Your task to perform on an android device: toggle data saver in the chrome app Image 0: 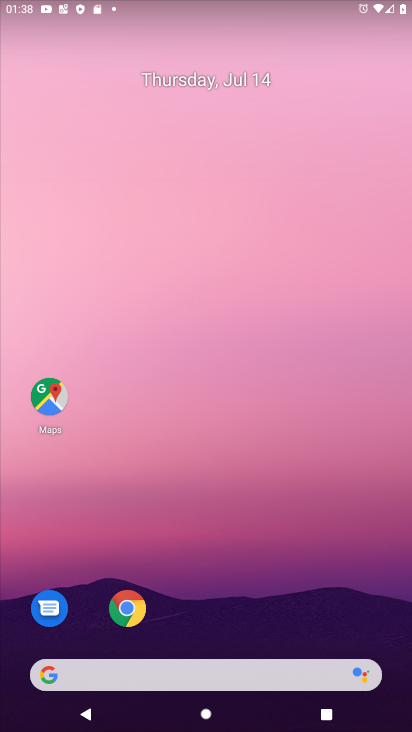
Step 0: press home button
Your task to perform on an android device: toggle data saver in the chrome app Image 1: 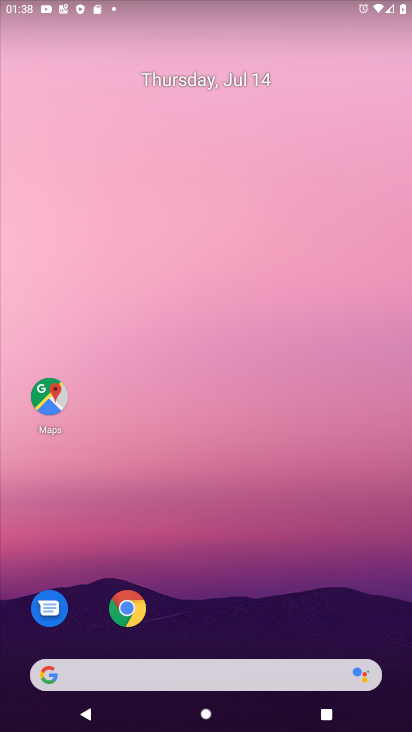
Step 1: drag from (197, 640) to (85, 139)
Your task to perform on an android device: toggle data saver in the chrome app Image 2: 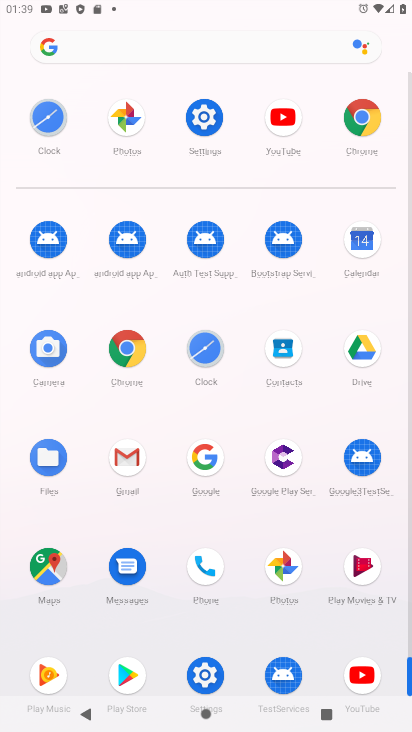
Step 2: click (129, 357)
Your task to perform on an android device: toggle data saver in the chrome app Image 3: 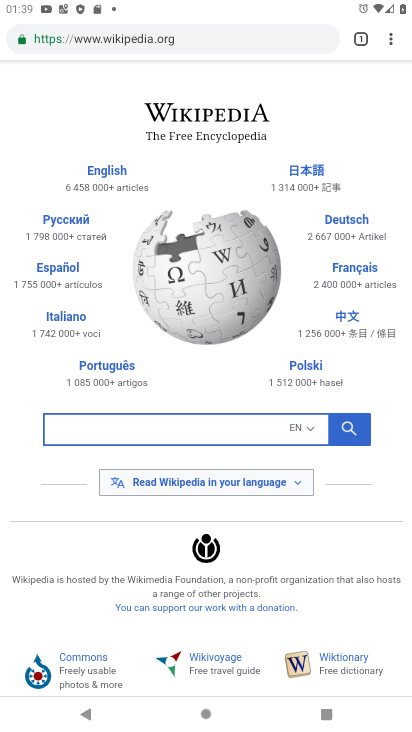
Step 3: drag from (395, 32) to (251, 468)
Your task to perform on an android device: toggle data saver in the chrome app Image 4: 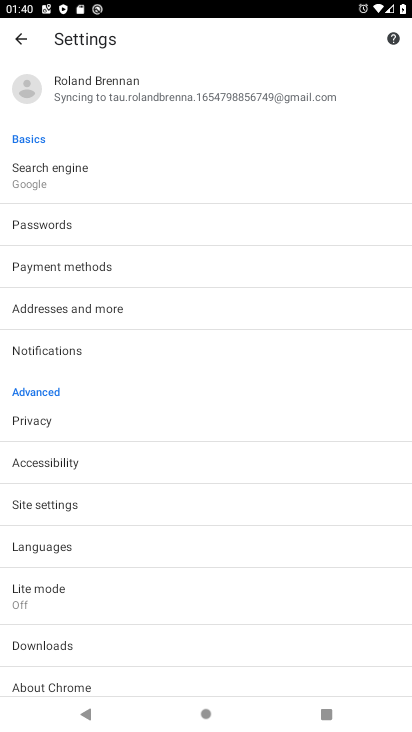
Step 4: drag from (154, 601) to (168, 392)
Your task to perform on an android device: toggle data saver in the chrome app Image 5: 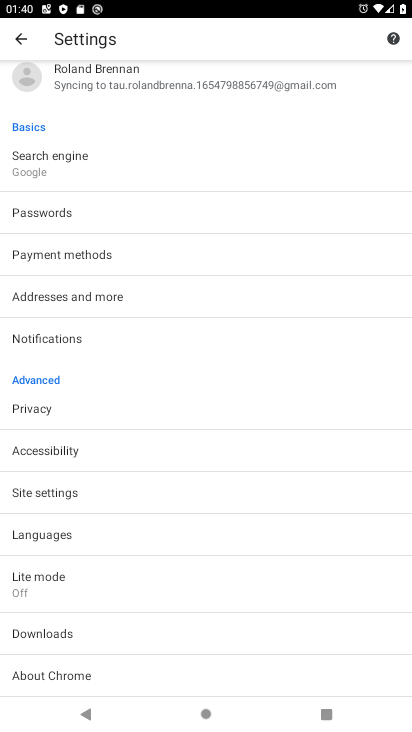
Step 5: click (149, 584)
Your task to perform on an android device: toggle data saver in the chrome app Image 6: 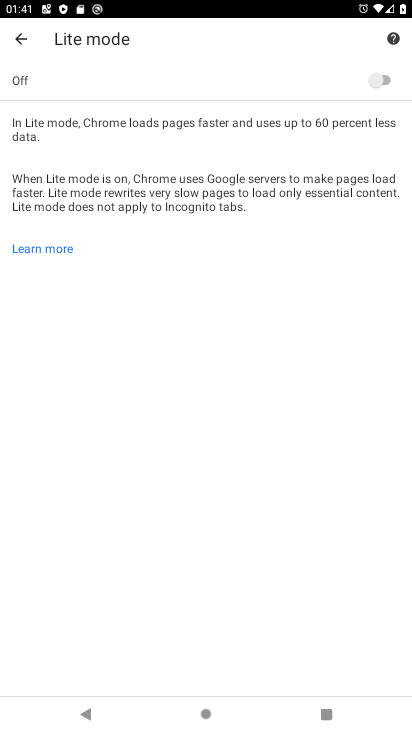
Step 6: click (328, 73)
Your task to perform on an android device: toggle data saver in the chrome app Image 7: 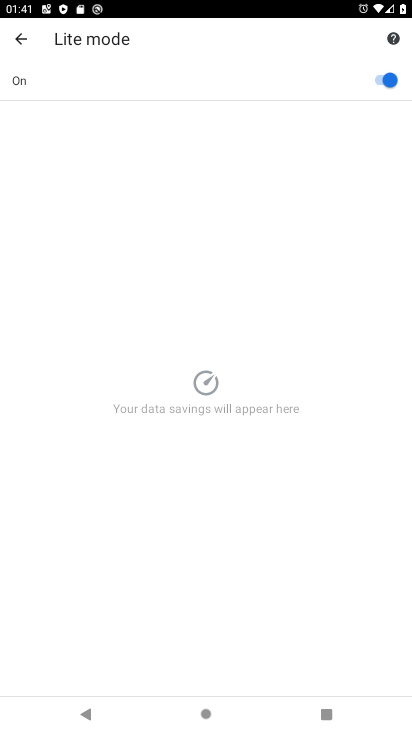
Step 7: task complete